Your task to perform on an android device: What's the weather going to be tomorrow? Image 0: 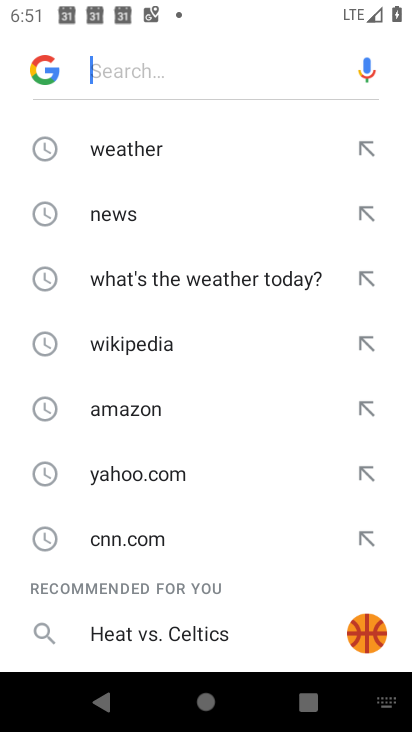
Step 0: press back button
Your task to perform on an android device: What's the weather going to be tomorrow? Image 1: 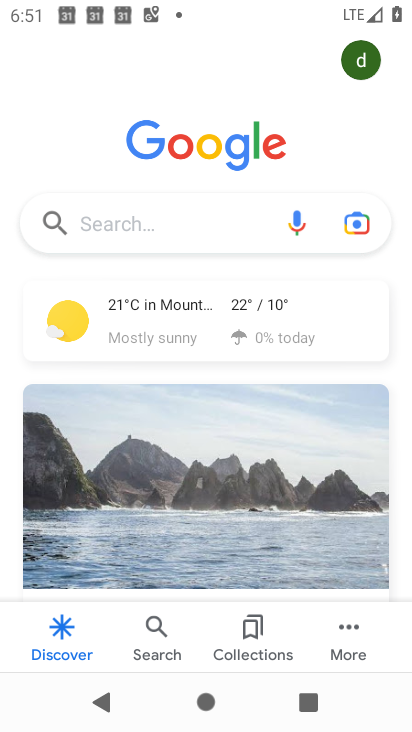
Step 1: drag from (360, 608) to (346, 265)
Your task to perform on an android device: What's the weather going to be tomorrow? Image 2: 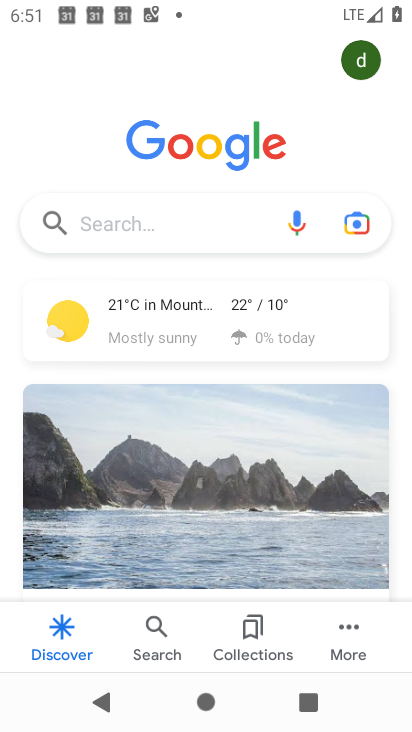
Step 2: click (193, 218)
Your task to perform on an android device: What's the weather going to be tomorrow? Image 3: 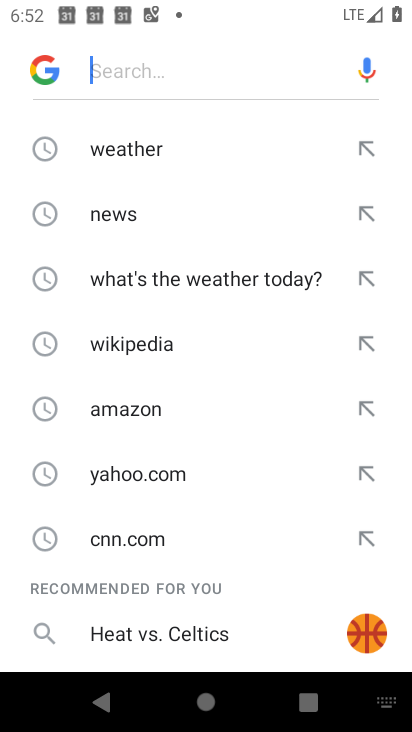
Step 3: drag from (141, 566) to (181, 234)
Your task to perform on an android device: What's the weather going to be tomorrow? Image 4: 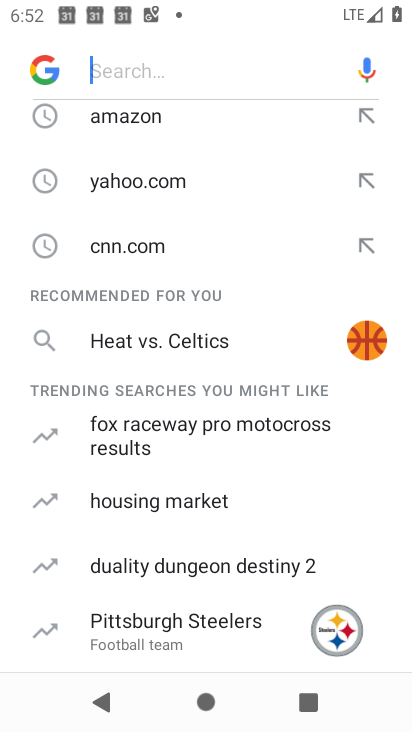
Step 4: drag from (170, 218) to (146, 656)
Your task to perform on an android device: What's the weather going to be tomorrow? Image 5: 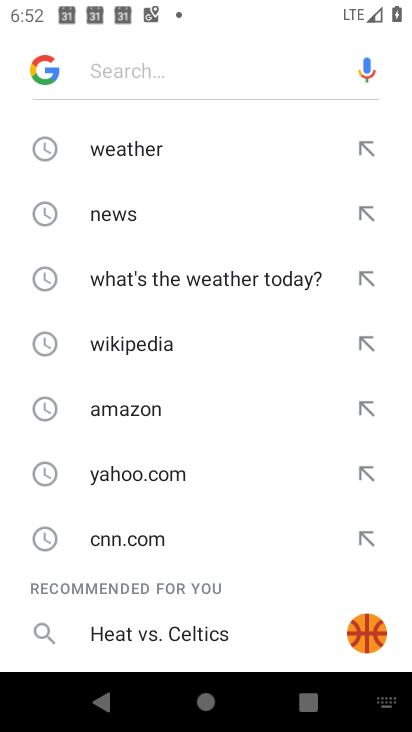
Step 5: type "what's the weather going to be tomorrow?"
Your task to perform on an android device: What's the weather going to be tomorrow? Image 6: 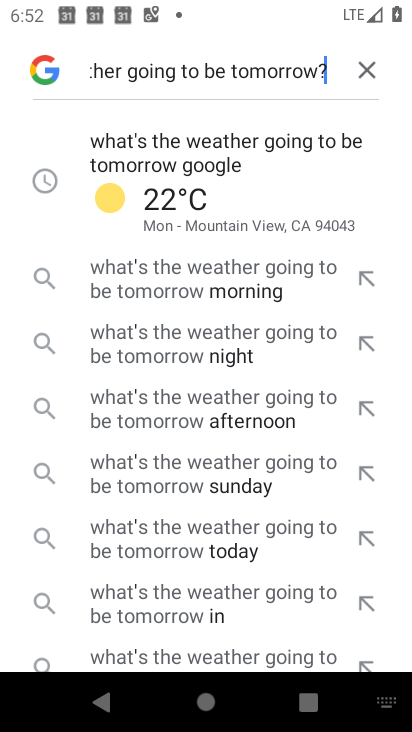
Step 6: click (227, 168)
Your task to perform on an android device: What's the weather going to be tomorrow? Image 7: 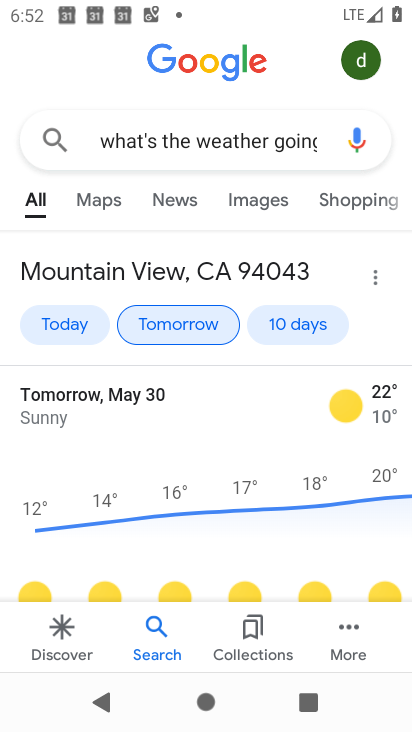
Step 7: task complete